Your task to perform on an android device: change the clock display to digital Image 0: 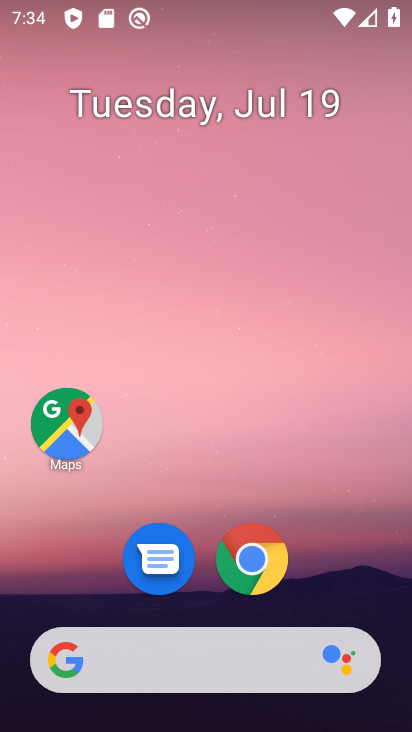
Step 0: drag from (66, 581) to (157, 40)
Your task to perform on an android device: change the clock display to digital Image 1: 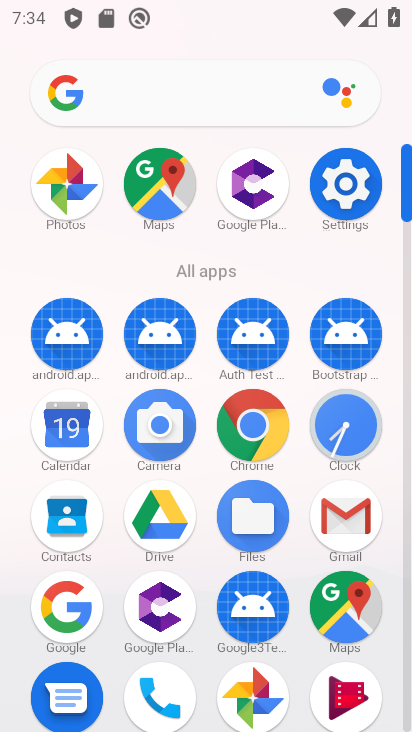
Step 1: click (335, 418)
Your task to perform on an android device: change the clock display to digital Image 2: 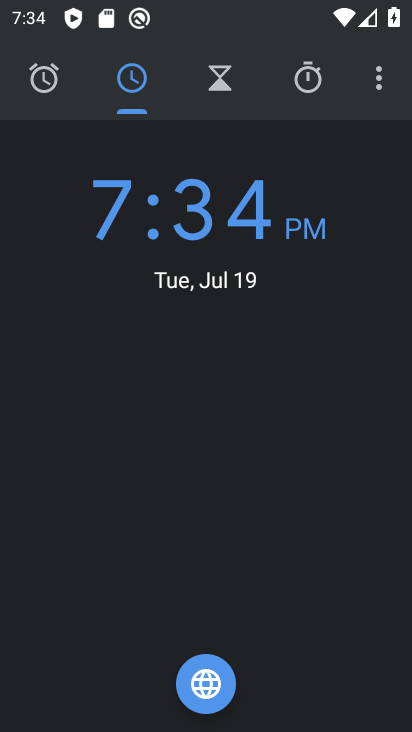
Step 2: click (367, 73)
Your task to perform on an android device: change the clock display to digital Image 3: 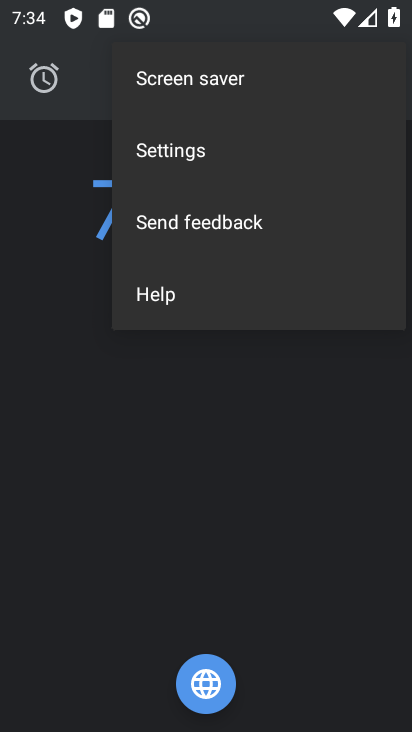
Step 3: click (229, 148)
Your task to perform on an android device: change the clock display to digital Image 4: 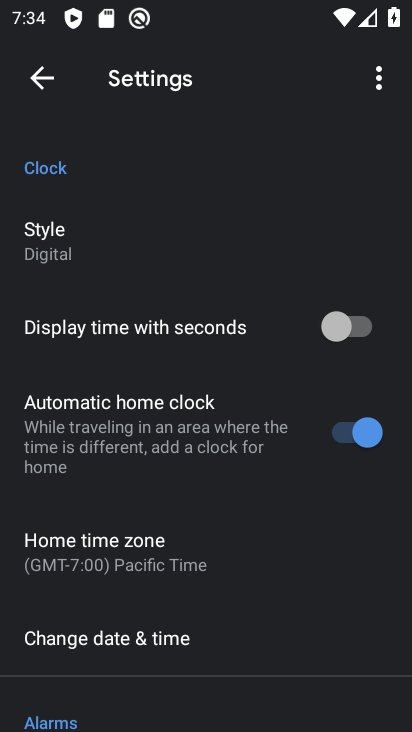
Step 4: click (21, 233)
Your task to perform on an android device: change the clock display to digital Image 5: 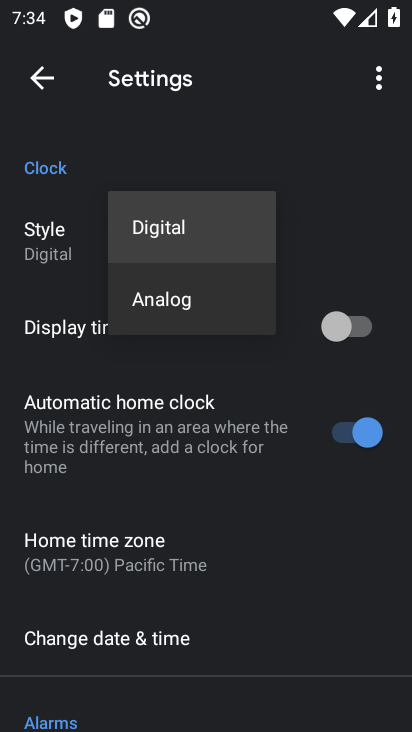
Step 5: click (164, 242)
Your task to perform on an android device: change the clock display to digital Image 6: 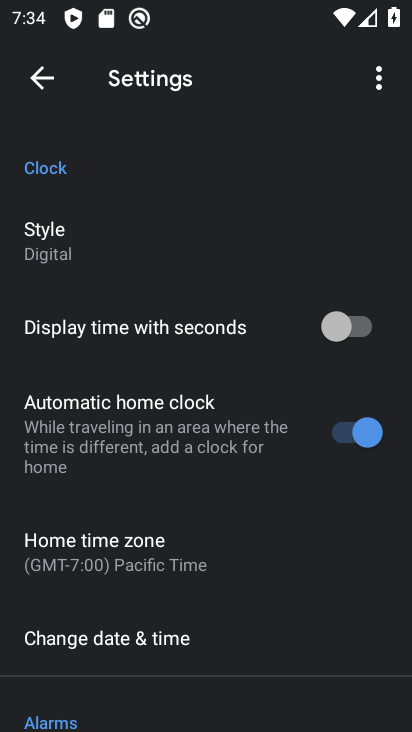
Step 6: task complete